Your task to perform on an android device: Open calendar and show me the second week of next month Image 0: 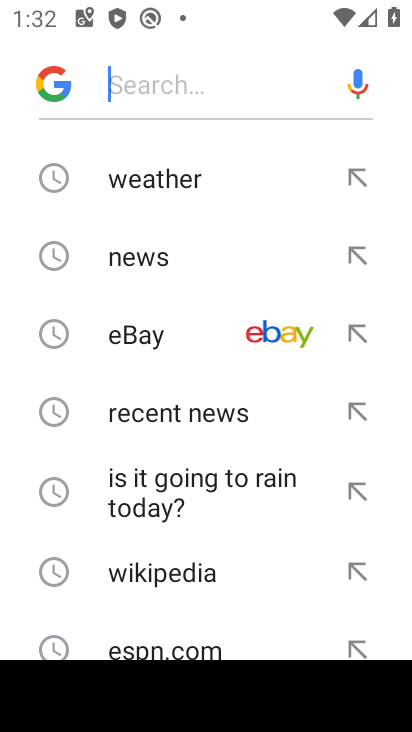
Step 0: press home button
Your task to perform on an android device: Open calendar and show me the second week of next month Image 1: 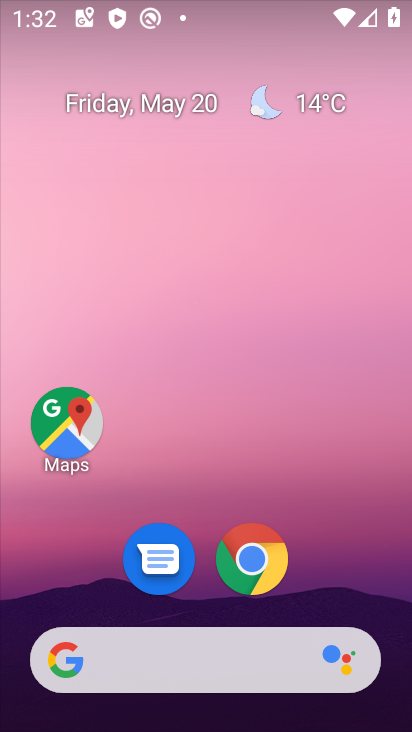
Step 1: drag from (359, 598) to (346, 148)
Your task to perform on an android device: Open calendar and show me the second week of next month Image 2: 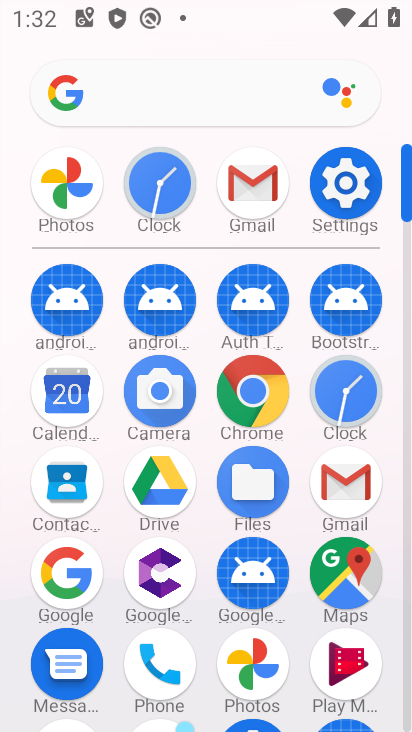
Step 2: click (65, 403)
Your task to perform on an android device: Open calendar and show me the second week of next month Image 3: 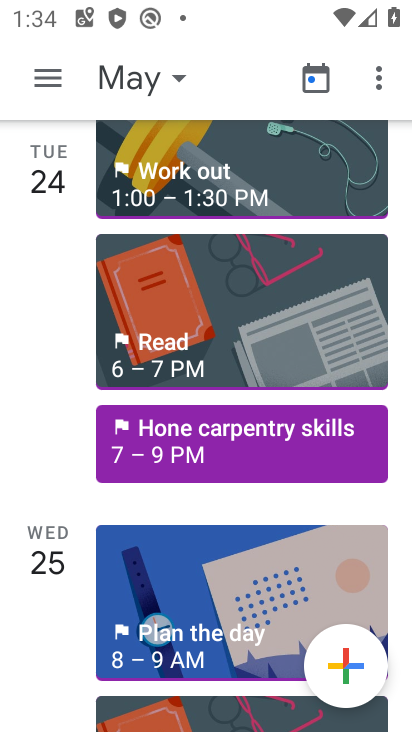
Step 3: task complete